Your task to perform on an android device: View the shopping cart on target.com. Add macbook pro 15 inch to the cart on target.com, then select checkout. Image 0: 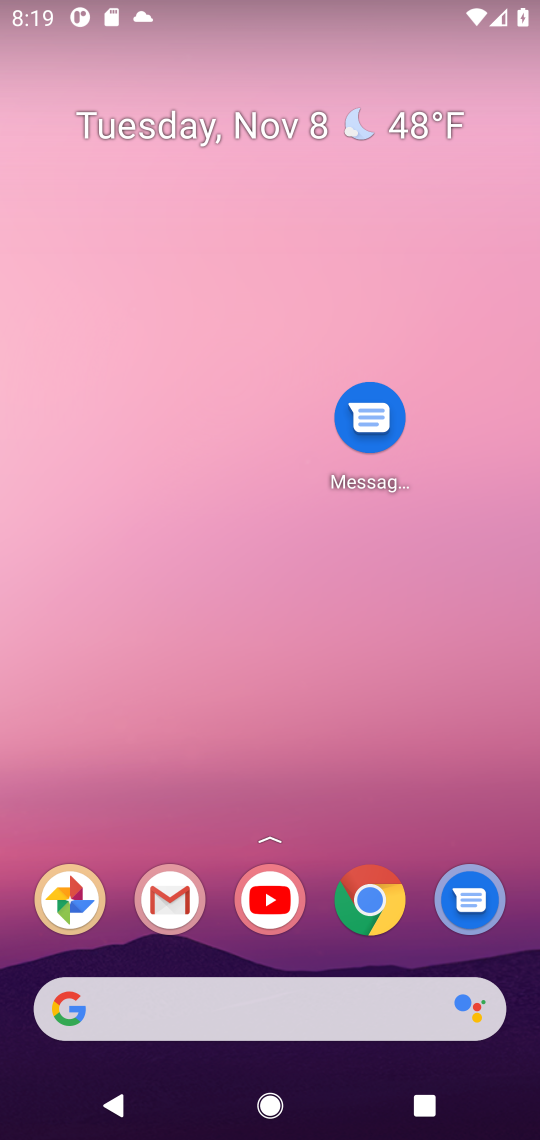
Step 0: drag from (226, 907) to (278, 414)
Your task to perform on an android device: View the shopping cart on target.com. Add macbook pro 15 inch to the cart on target.com, then select checkout. Image 1: 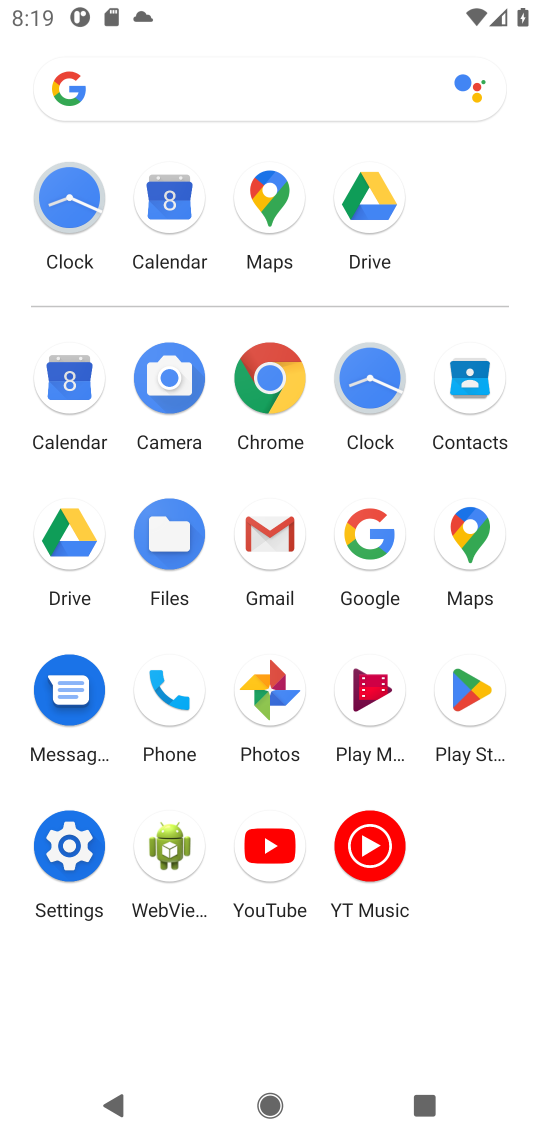
Step 1: click (372, 526)
Your task to perform on an android device: View the shopping cart on target.com. Add macbook pro 15 inch to the cart on target.com, then select checkout. Image 2: 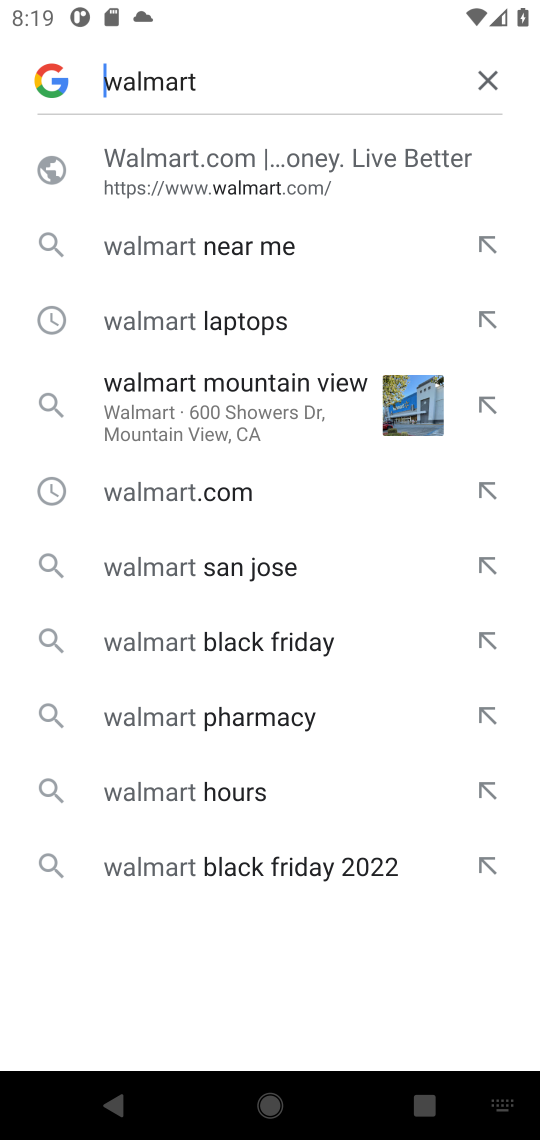
Step 2: click (493, 75)
Your task to perform on an android device: View the shopping cart on target.com. Add macbook pro 15 inch to the cart on target.com, then select checkout. Image 3: 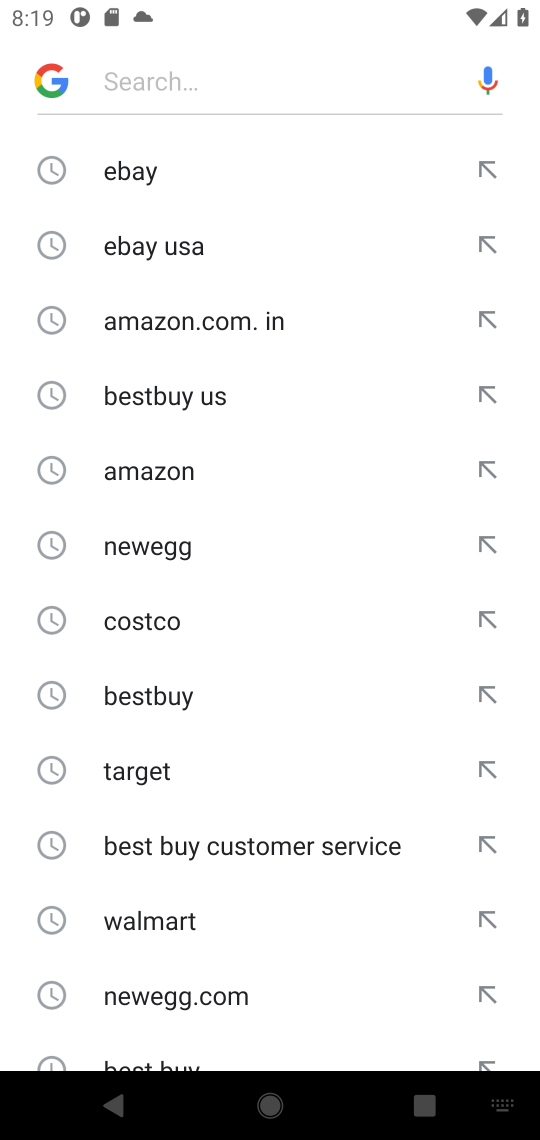
Step 3: click (187, 66)
Your task to perform on an android device: View the shopping cart on target.com. Add macbook pro 15 inch to the cart on target.com, then select checkout. Image 4: 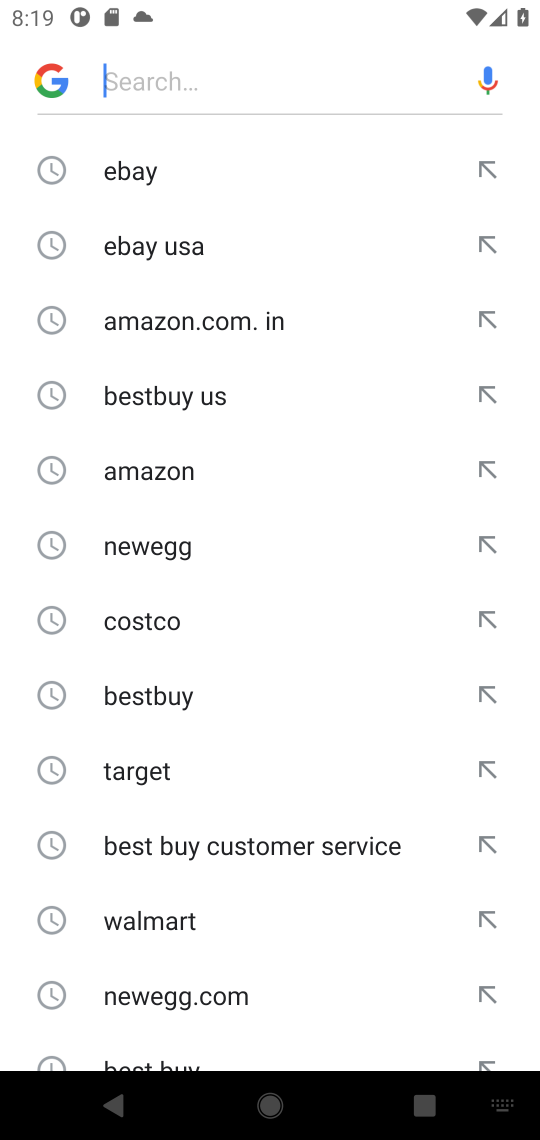
Step 4: type "target "
Your task to perform on an android device: View the shopping cart on target.com. Add macbook pro 15 inch to the cart on target.com, then select checkout. Image 5: 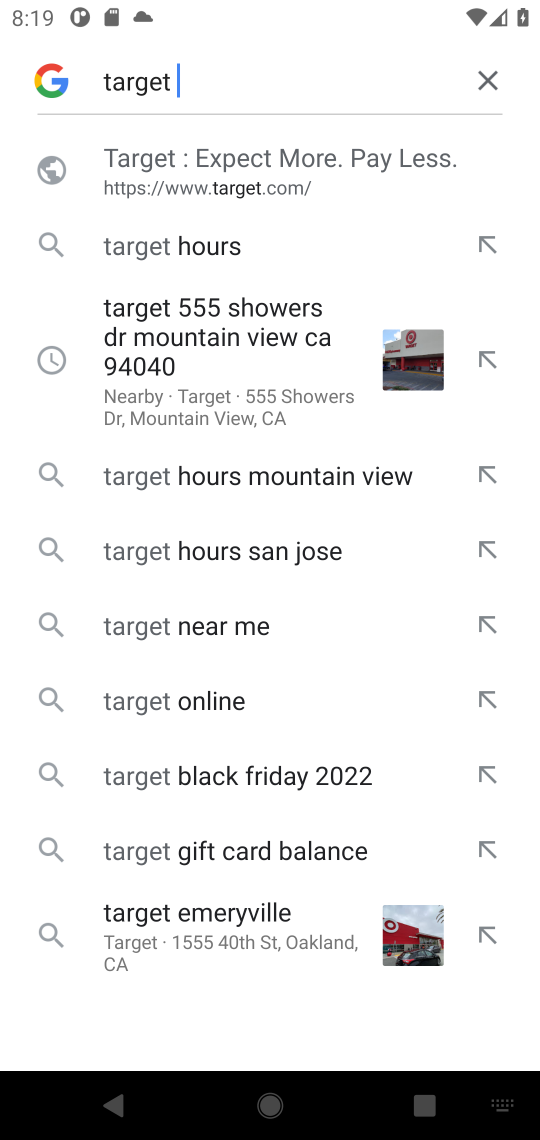
Step 5: click (235, 158)
Your task to perform on an android device: View the shopping cart on target.com. Add macbook pro 15 inch to the cart on target.com, then select checkout. Image 6: 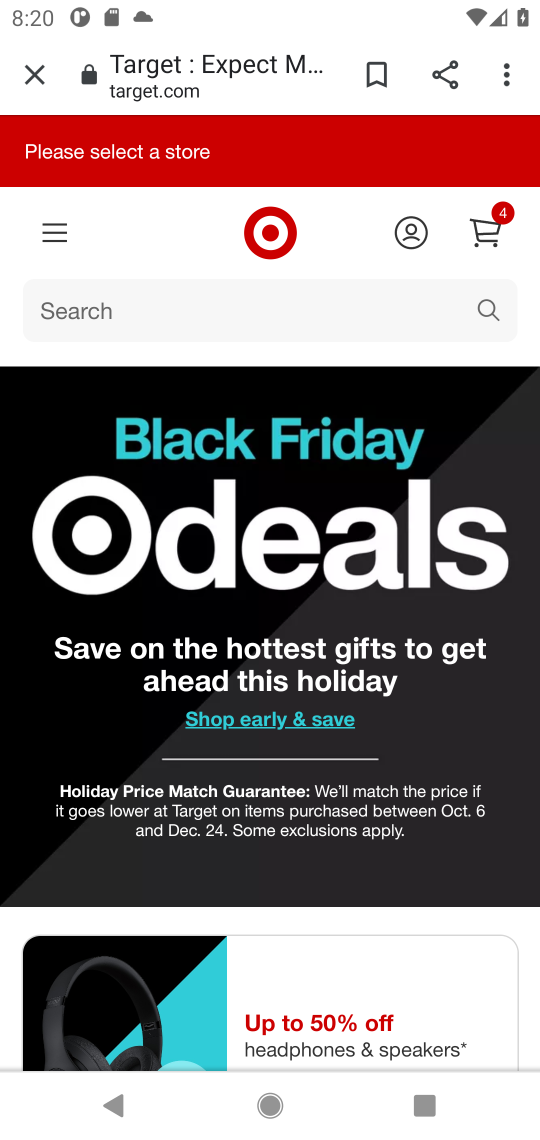
Step 6: click (262, 302)
Your task to perform on an android device: View the shopping cart on target.com. Add macbook pro 15 inch to the cart on target.com, then select checkout. Image 7: 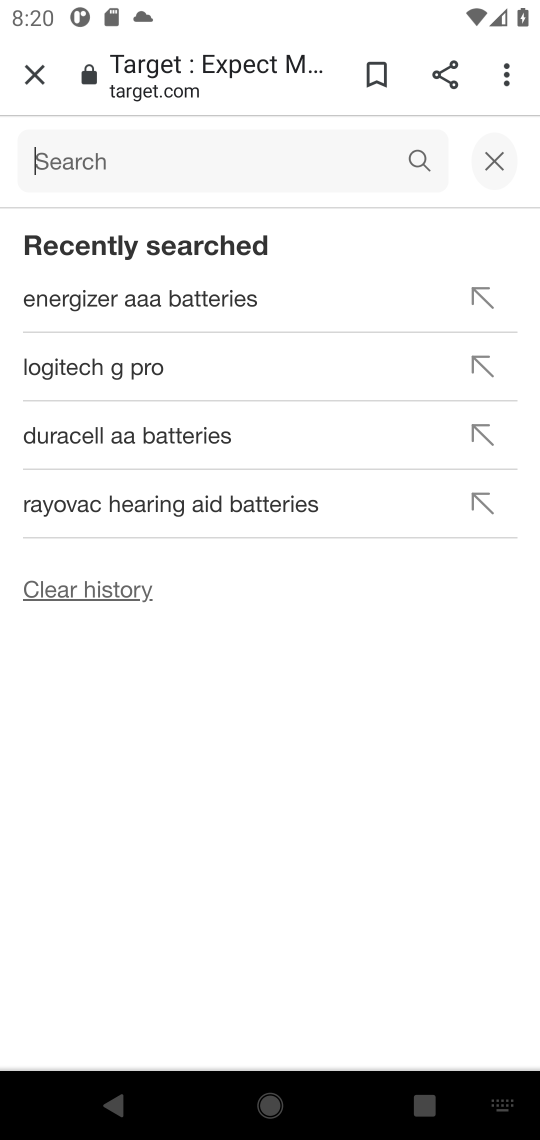
Step 7: click (110, 144)
Your task to perform on an android device: View the shopping cart on target.com. Add macbook pro 15 inch to the cart on target.com, then select checkout. Image 8: 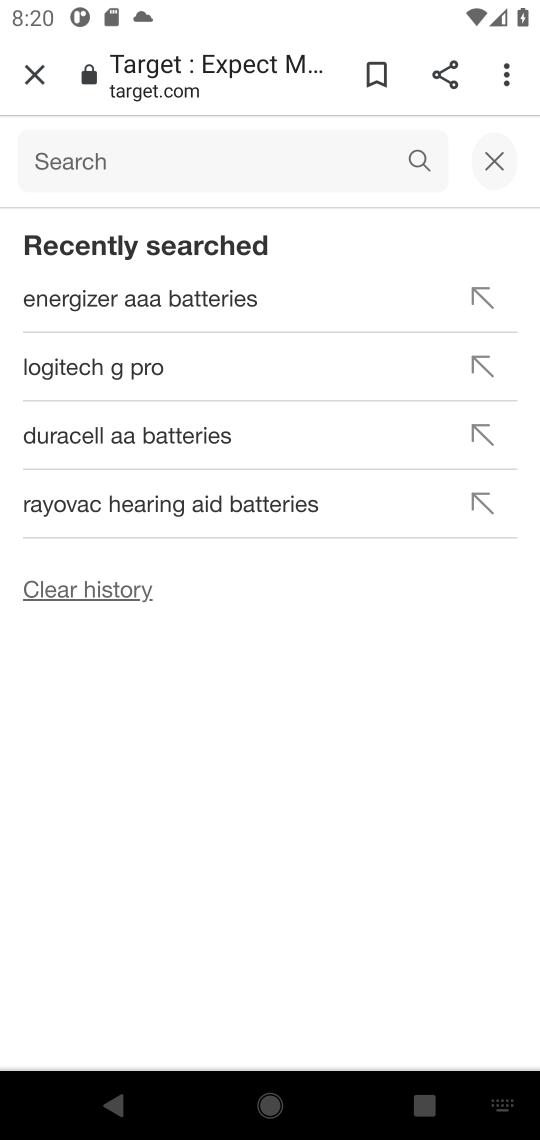
Step 8: type "macbook "
Your task to perform on an android device: View the shopping cart on target.com. Add macbook pro 15 inch to the cart on target.com, then select checkout. Image 9: 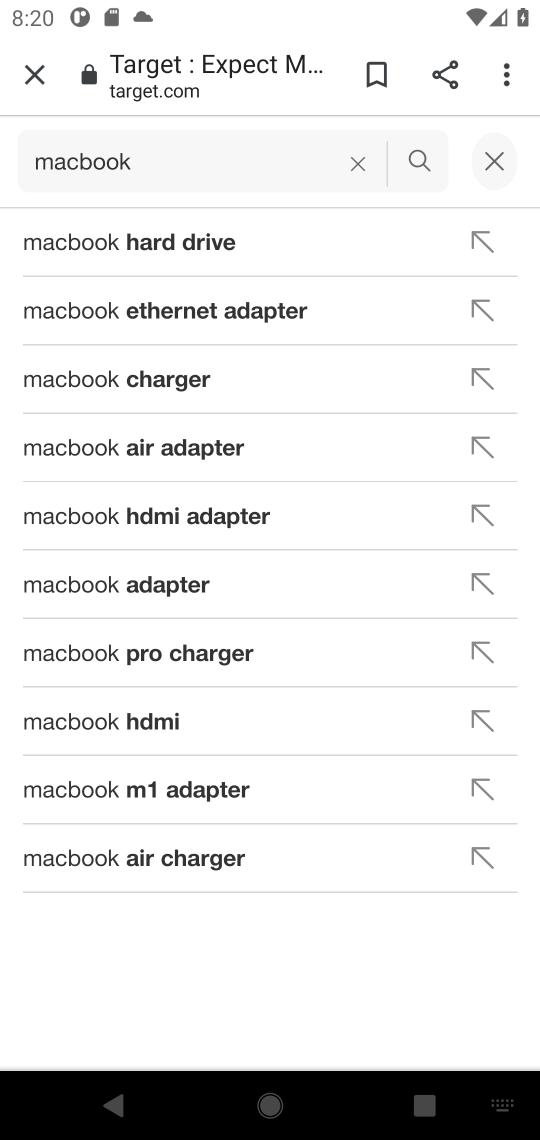
Step 9: click (424, 156)
Your task to perform on an android device: View the shopping cart on target.com. Add macbook pro 15 inch to the cart on target.com, then select checkout. Image 10: 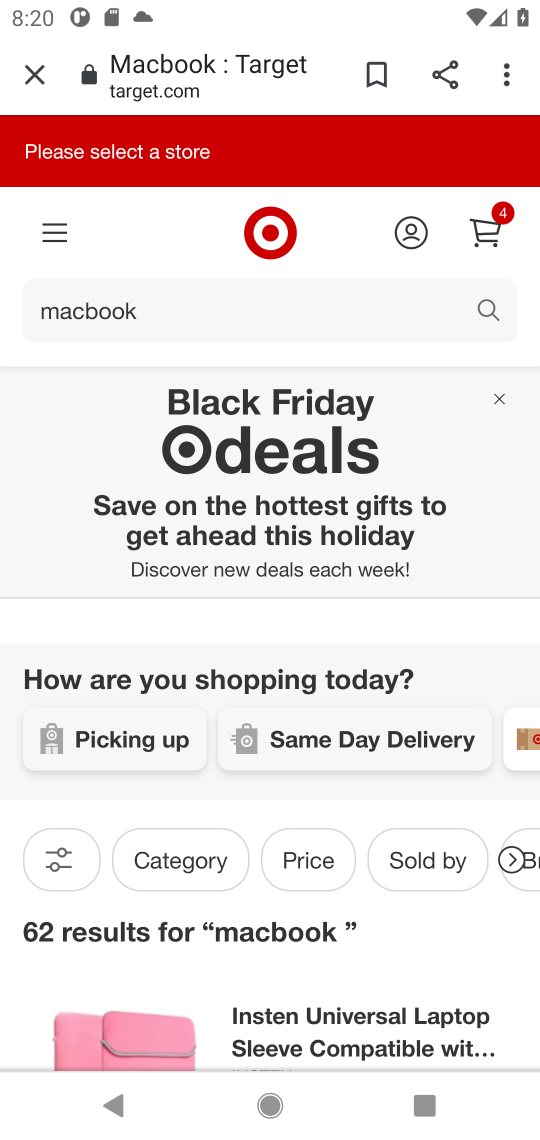
Step 10: drag from (318, 972) to (325, 307)
Your task to perform on an android device: View the shopping cart on target.com. Add macbook pro 15 inch to the cart on target.com, then select checkout. Image 11: 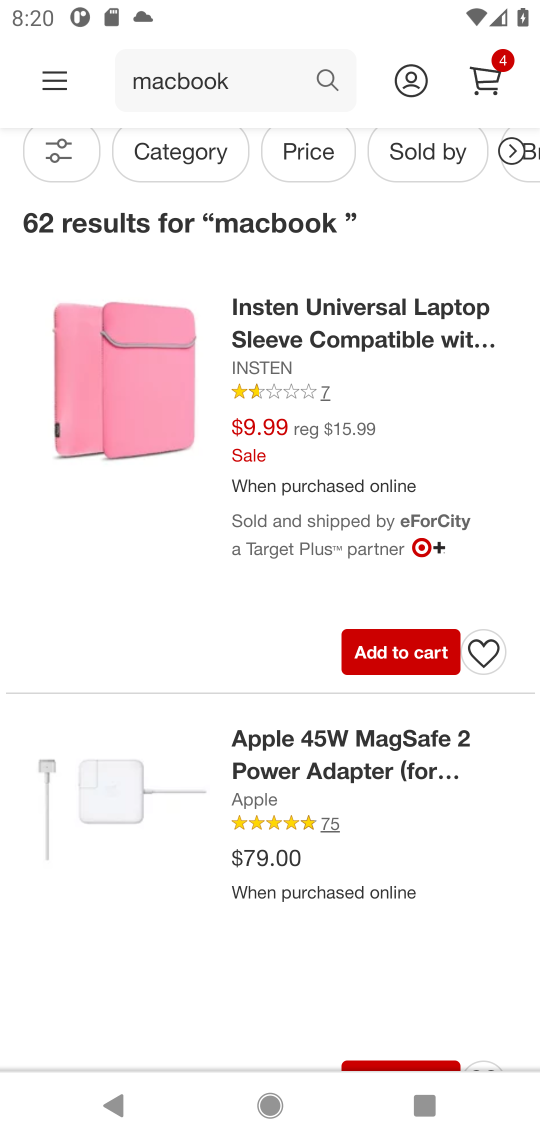
Step 11: drag from (369, 902) to (334, 385)
Your task to perform on an android device: View the shopping cart on target.com. Add macbook pro 15 inch to the cart on target.com, then select checkout. Image 12: 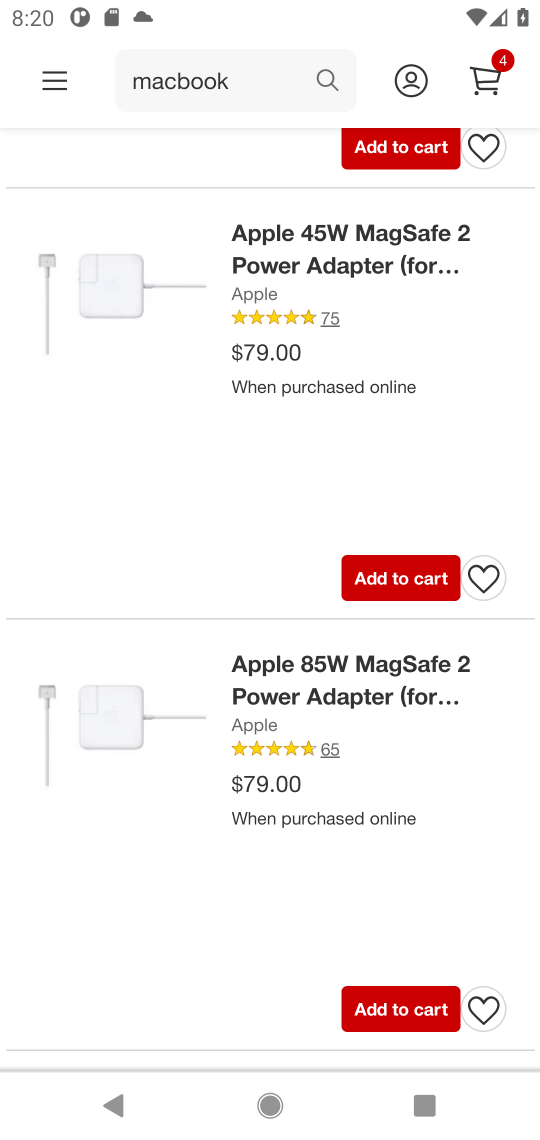
Step 12: click (314, 79)
Your task to perform on an android device: View the shopping cart on target.com. Add macbook pro 15 inch to the cart on target.com, then select checkout. Image 13: 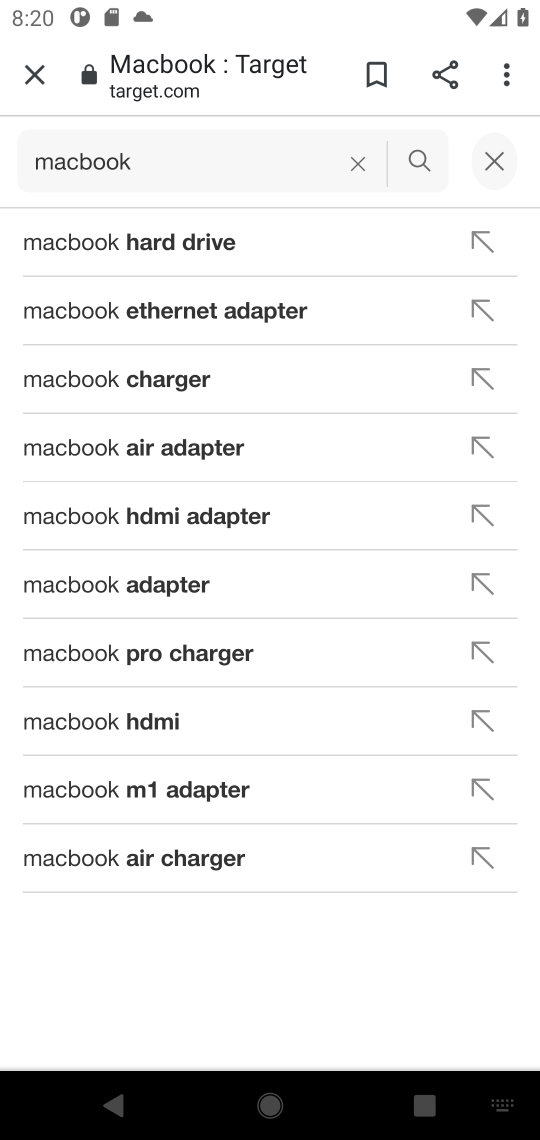
Step 13: click (355, 165)
Your task to perform on an android device: View the shopping cart on target.com. Add macbook pro 15 inch to the cart on target.com, then select checkout. Image 14: 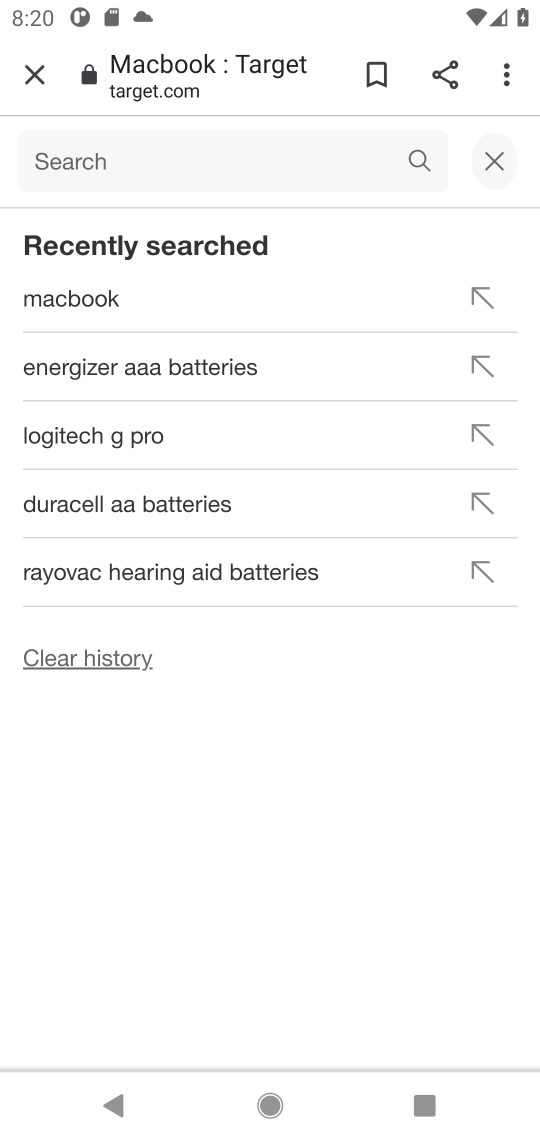
Step 14: click (95, 159)
Your task to perform on an android device: View the shopping cart on target.com. Add macbook pro 15 inch to the cart on target.com, then select checkout. Image 15: 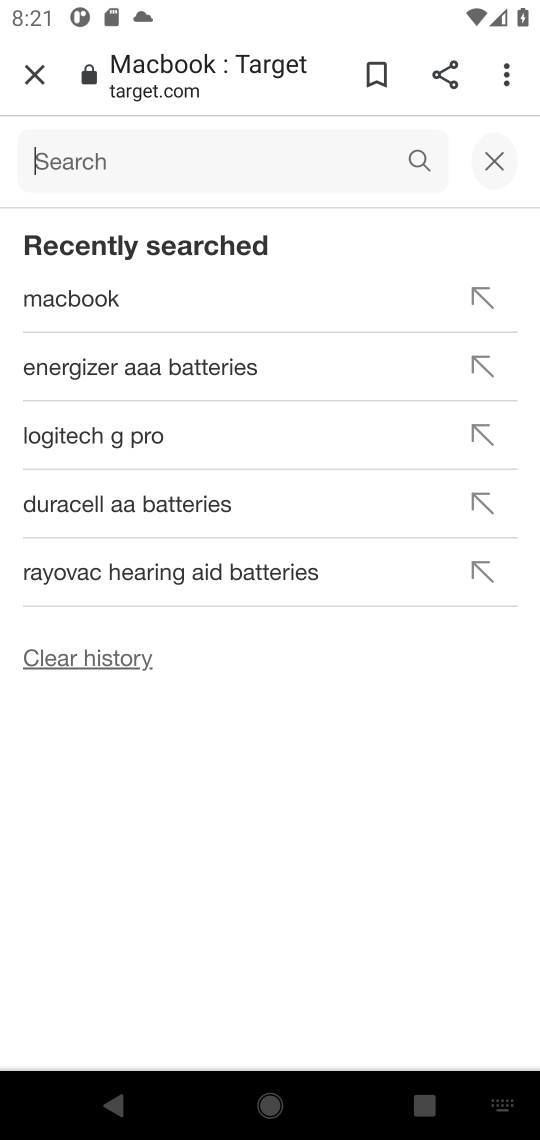
Step 15: type "macbook pro 15 inch  "
Your task to perform on an android device: View the shopping cart on target.com. Add macbook pro 15 inch to the cart on target.com, then select checkout. Image 16: 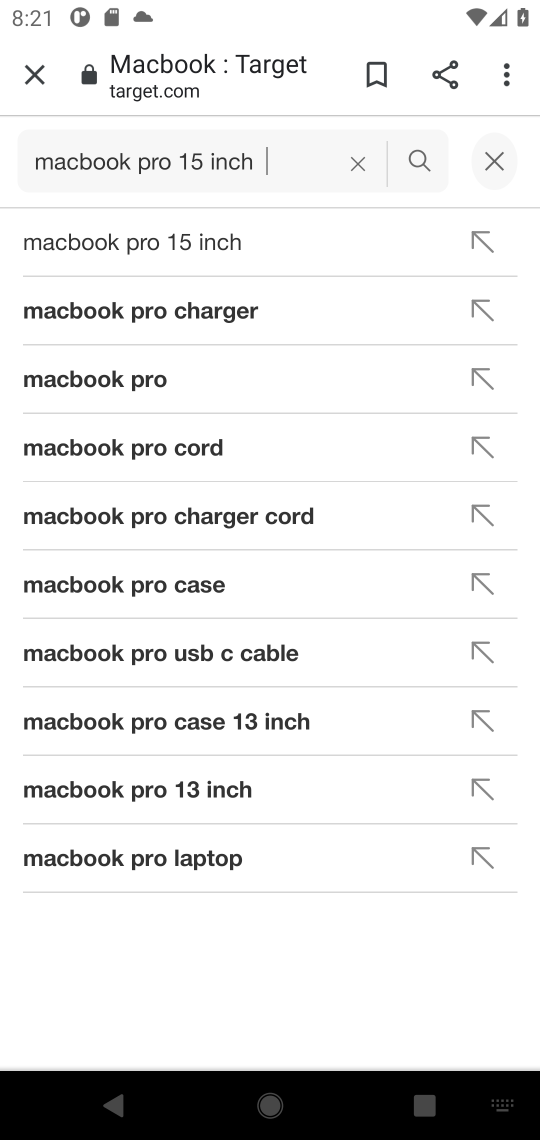
Step 16: click (247, 240)
Your task to perform on an android device: View the shopping cart on target.com. Add macbook pro 15 inch to the cart on target.com, then select checkout. Image 17: 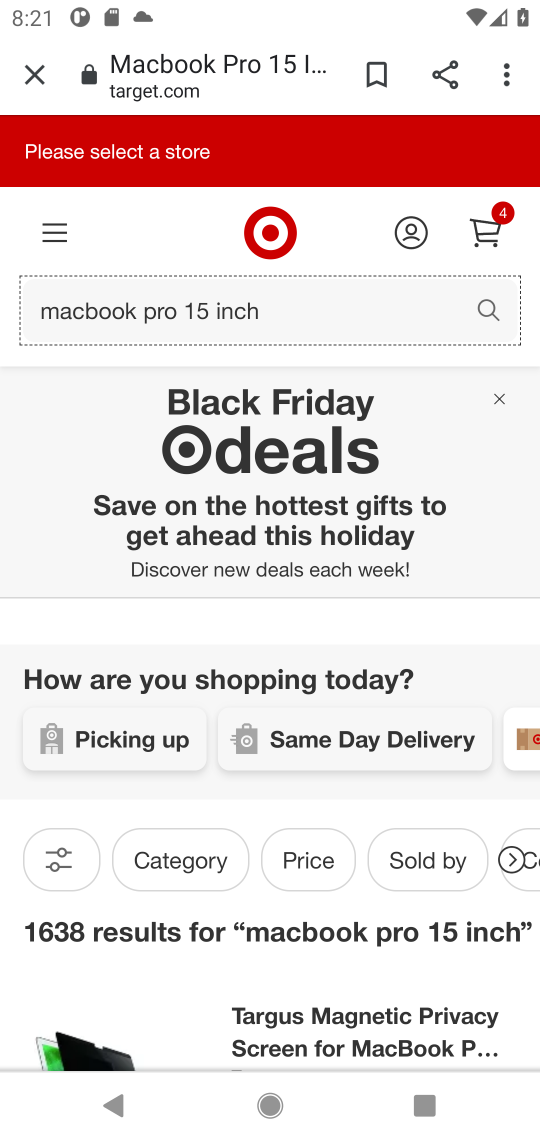
Step 17: drag from (252, 937) to (338, 260)
Your task to perform on an android device: View the shopping cart on target.com. Add macbook pro 15 inch to the cart on target.com, then select checkout. Image 18: 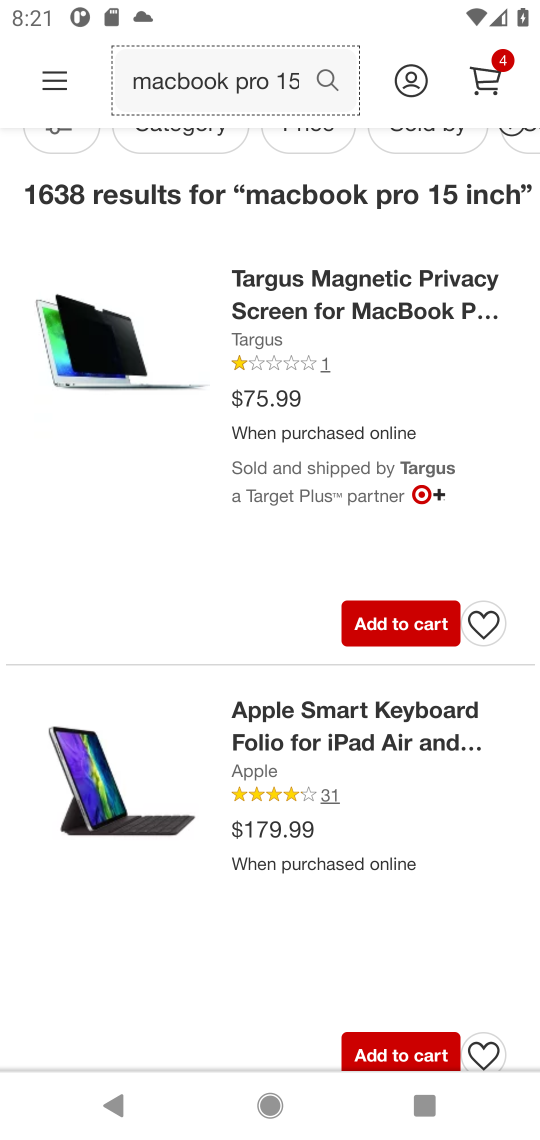
Step 18: click (373, 1040)
Your task to perform on an android device: View the shopping cart on target.com. Add macbook pro 15 inch to the cart on target.com, then select checkout. Image 19: 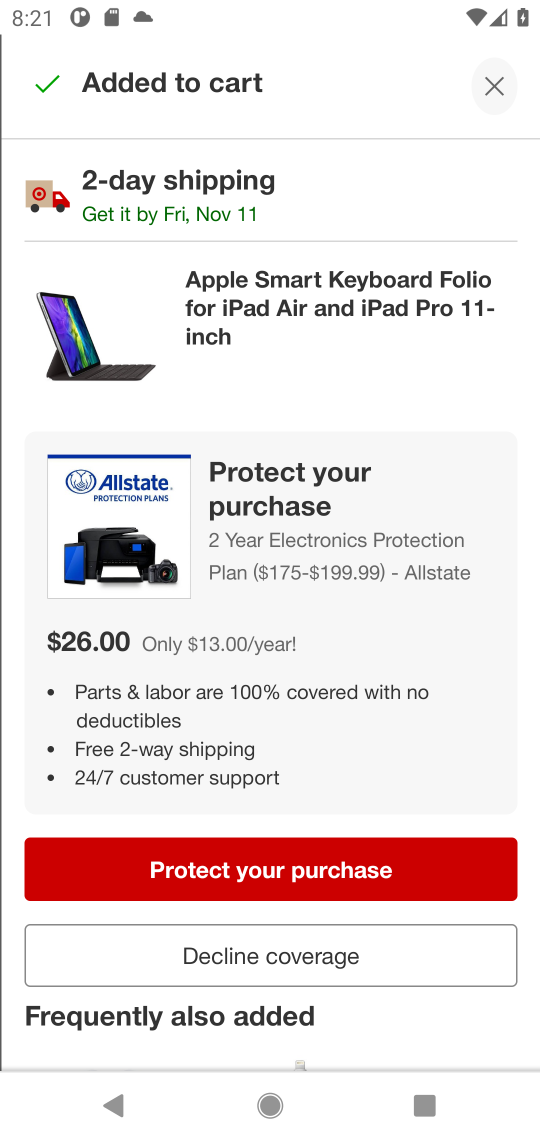
Step 19: task complete